Your task to perform on an android device: Open CNN.com Image 0: 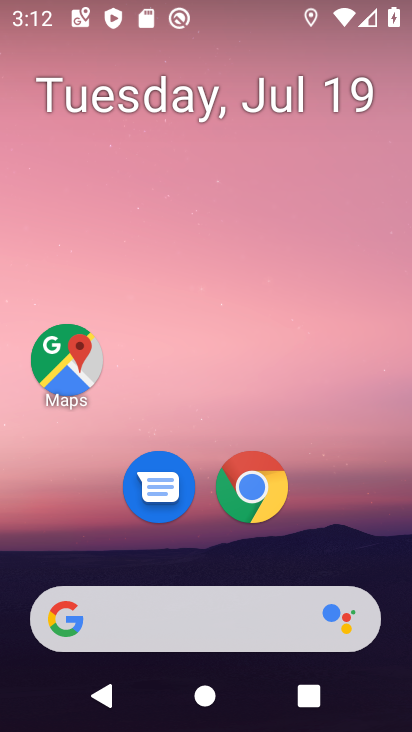
Step 0: click (229, 485)
Your task to perform on an android device: Open CNN.com Image 1: 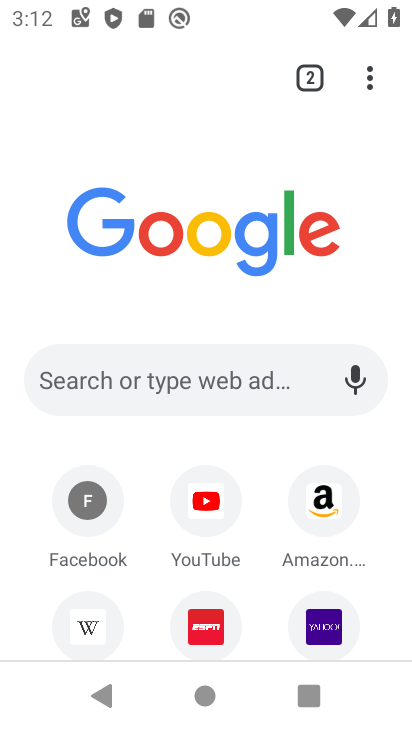
Step 1: click (177, 377)
Your task to perform on an android device: Open CNN.com Image 2: 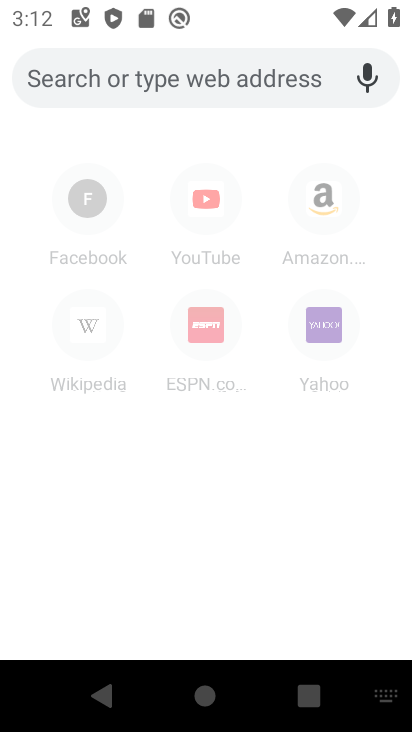
Step 2: type "cnn.com"
Your task to perform on an android device: Open CNN.com Image 3: 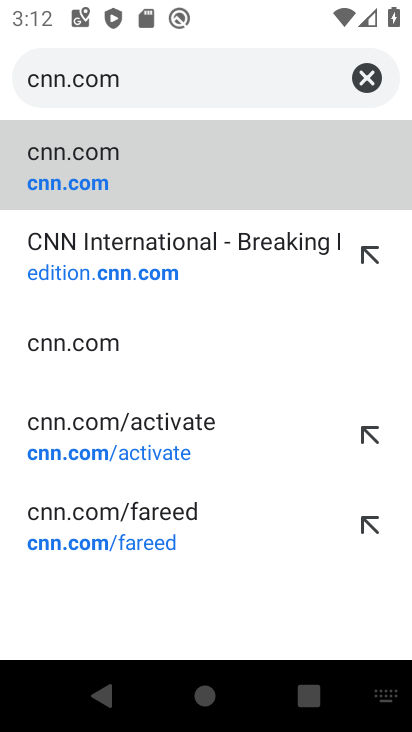
Step 3: click (143, 162)
Your task to perform on an android device: Open CNN.com Image 4: 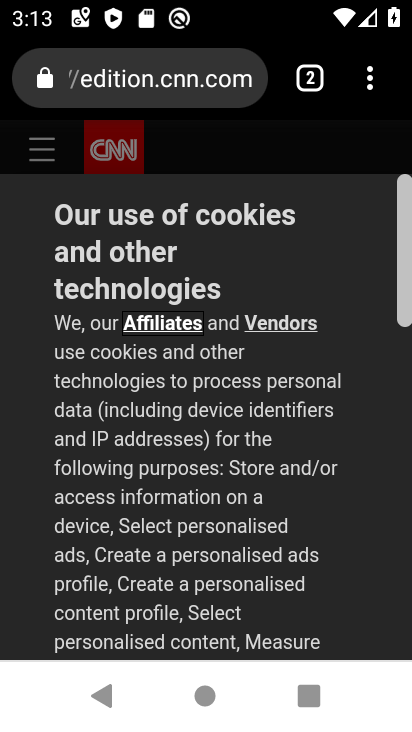
Step 4: task complete